Your task to perform on an android device: What is the recent news? Image 0: 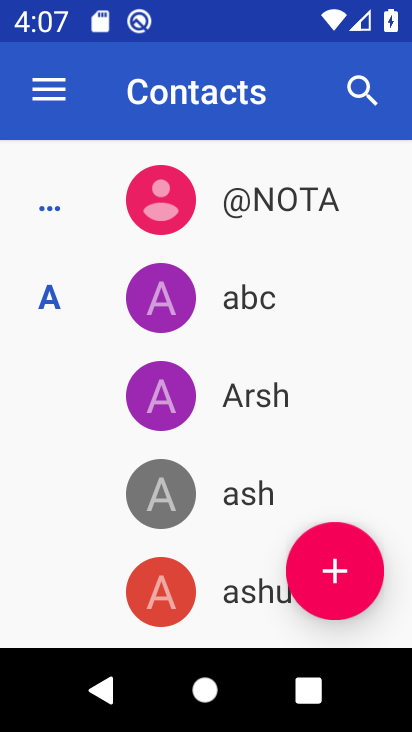
Step 0: press home button
Your task to perform on an android device: What is the recent news? Image 1: 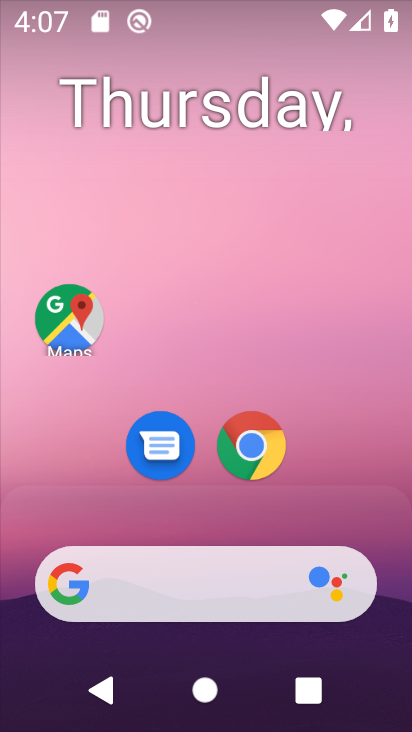
Step 1: drag from (325, 513) to (356, 63)
Your task to perform on an android device: What is the recent news? Image 2: 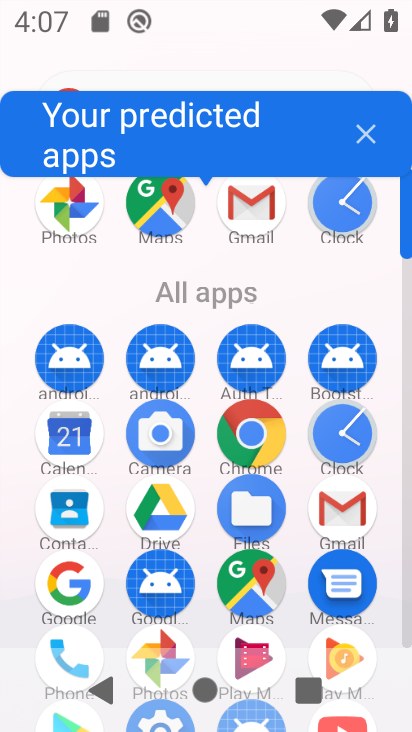
Step 2: click (271, 425)
Your task to perform on an android device: What is the recent news? Image 3: 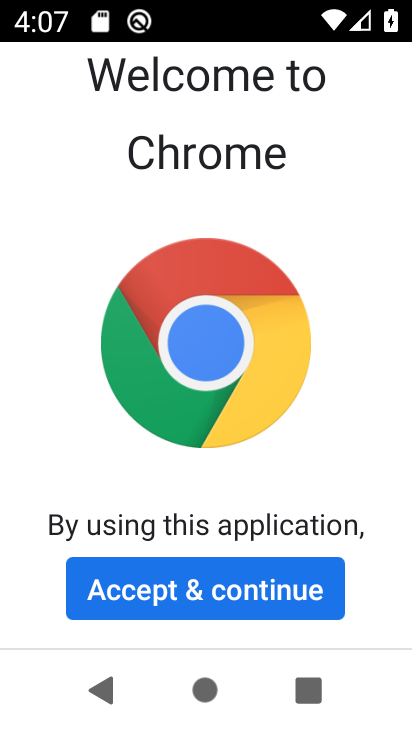
Step 3: click (239, 597)
Your task to perform on an android device: What is the recent news? Image 4: 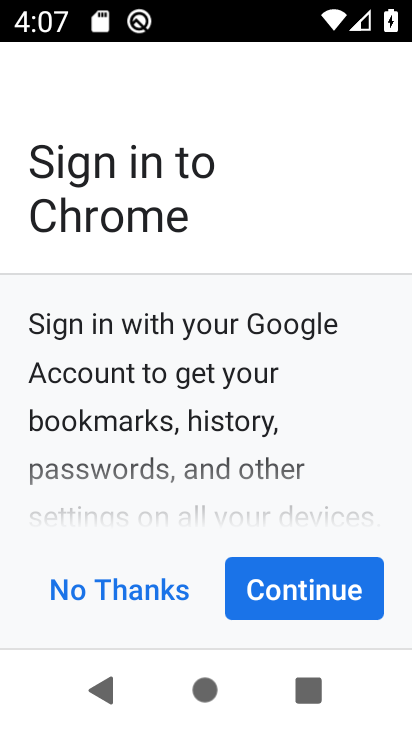
Step 4: click (264, 590)
Your task to perform on an android device: What is the recent news? Image 5: 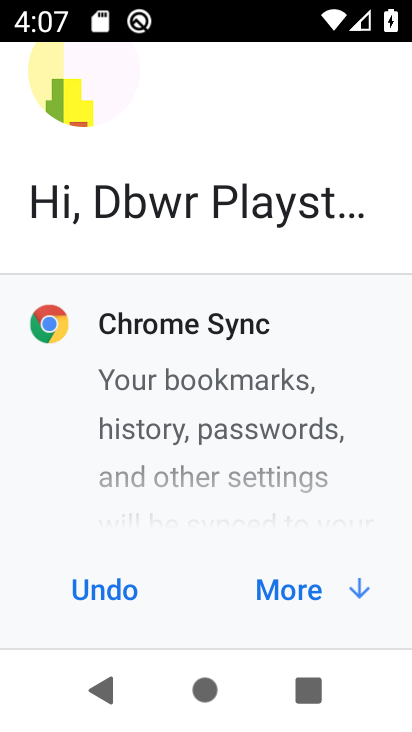
Step 5: click (276, 590)
Your task to perform on an android device: What is the recent news? Image 6: 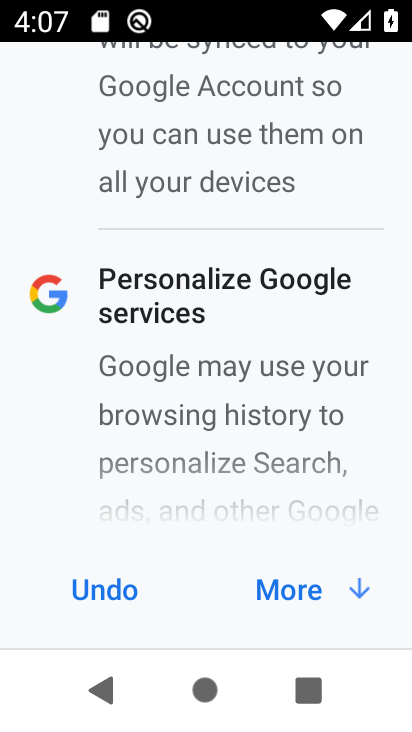
Step 6: click (276, 590)
Your task to perform on an android device: What is the recent news? Image 7: 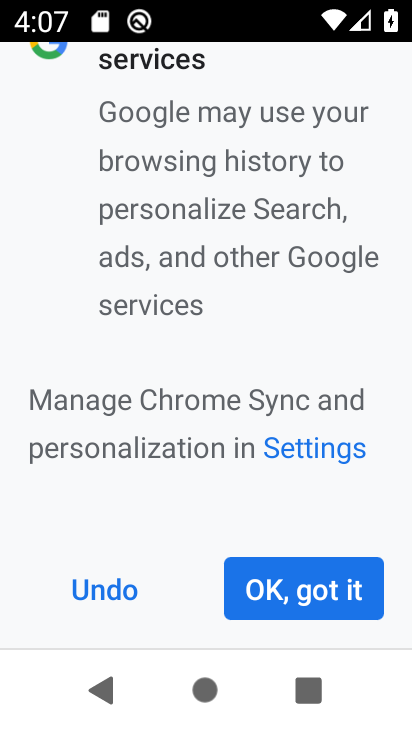
Step 7: click (276, 590)
Your task to perform on an android device: What is the recent news? Image 8: 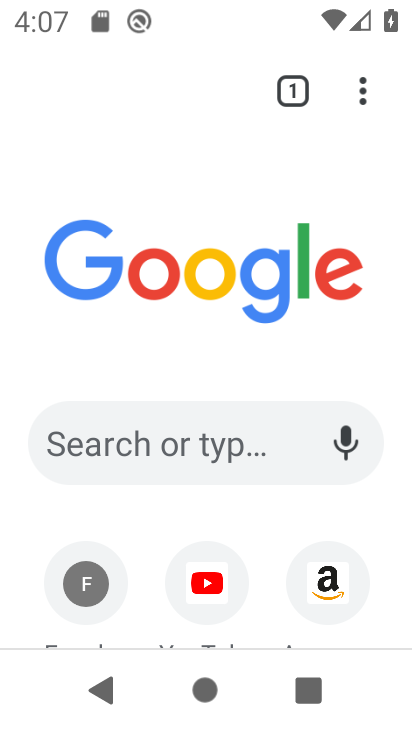
Step 8: click (163, 453)
Your task to perform on an android device: What is the recent news? Image 9: 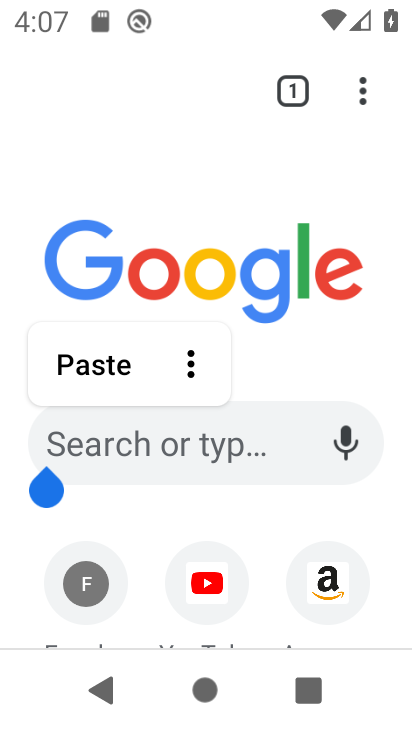
Step 9: click (163, 453)
Your task to perform on an android device: What is the recent news? Image 10: 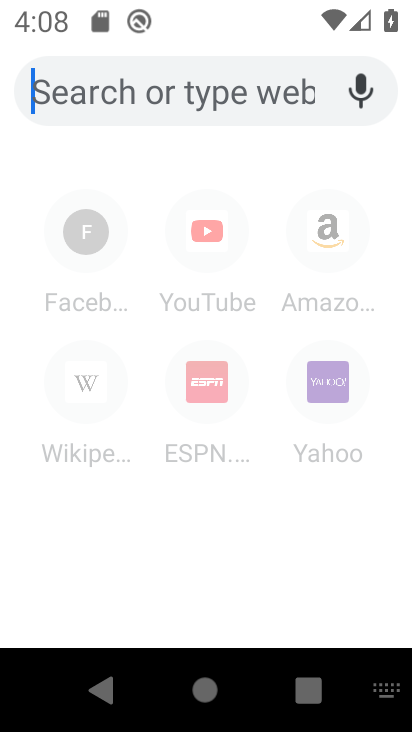
Step 10: type " recent news?"
Your task to perform on an android device: What is the recent news? Image 11: 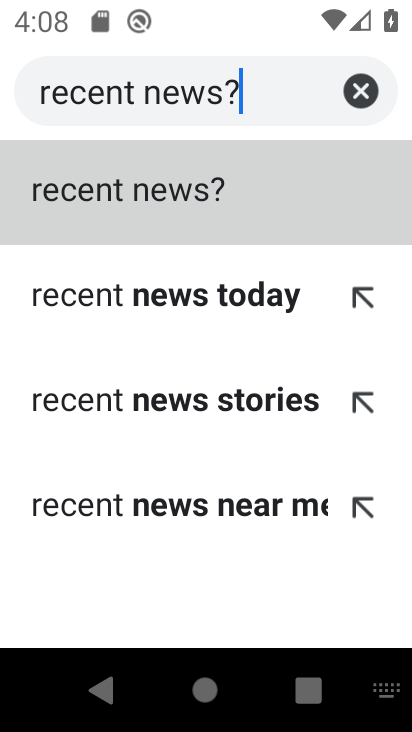
Step 11: click (121, 185)
Your task to perform on an android device: What is the recent news? Image 12: 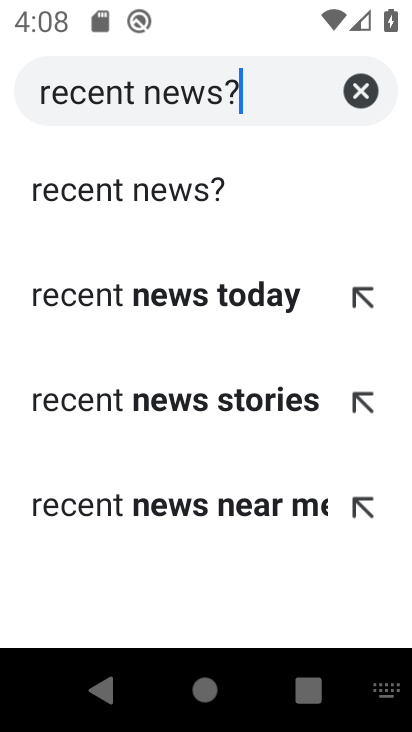
Step 12: click (175, 187)
Your task to perform on an android device: What is the recent news? Image 13: 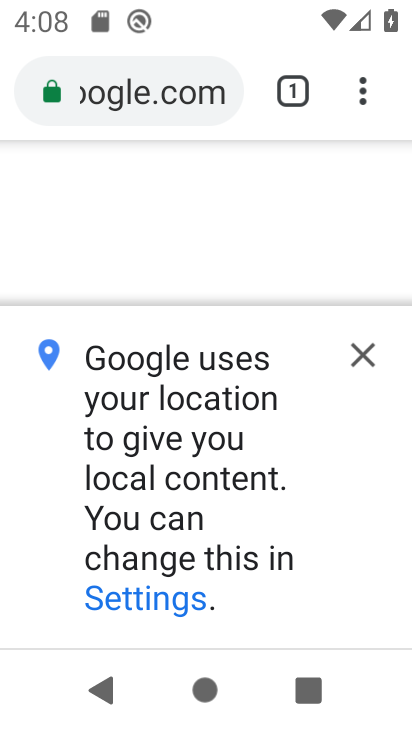
Step 13: click (359, 352)
Your task to perform on an android device: What is the recent news? Image 14: 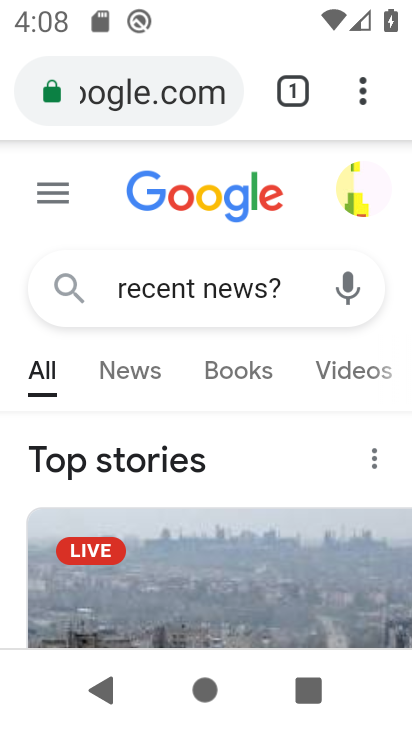
Step 14: click (114, 369)
Your task to perform on an android device: What is the recent news? Image 15: 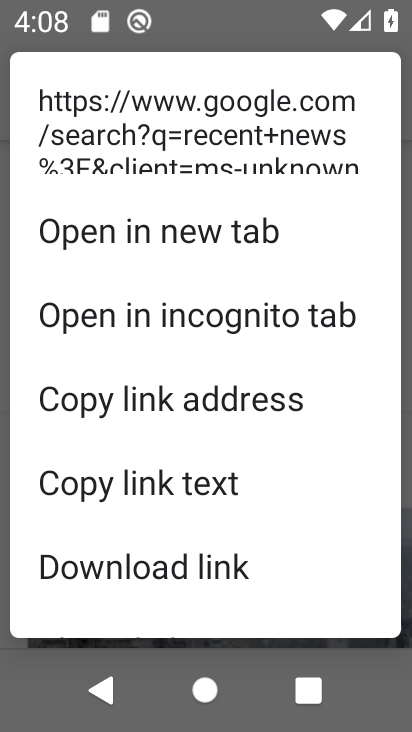
Step 15: click (41, 673)
Your task to perform on an android device: What is the recent news? Image 16: 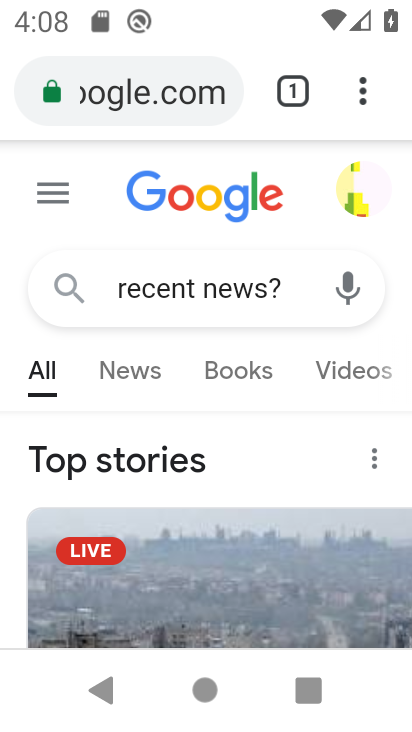
Step 16: click (130, 371)
Your task to perform on an android device: What is the recent news? Image 17: 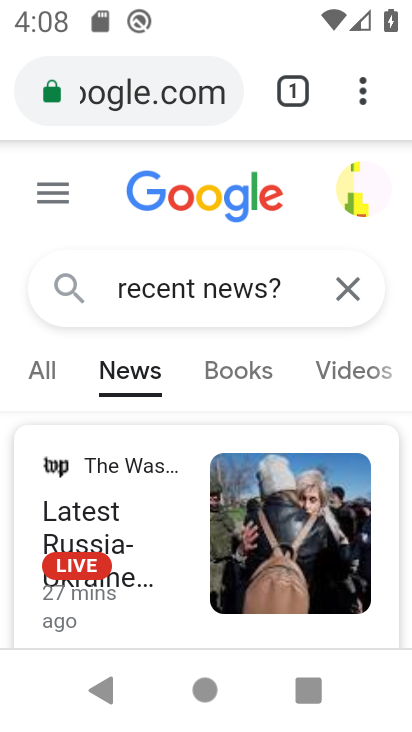
Step 17: task complete